Your task to perform on an android device: turn off wifi Image 0: 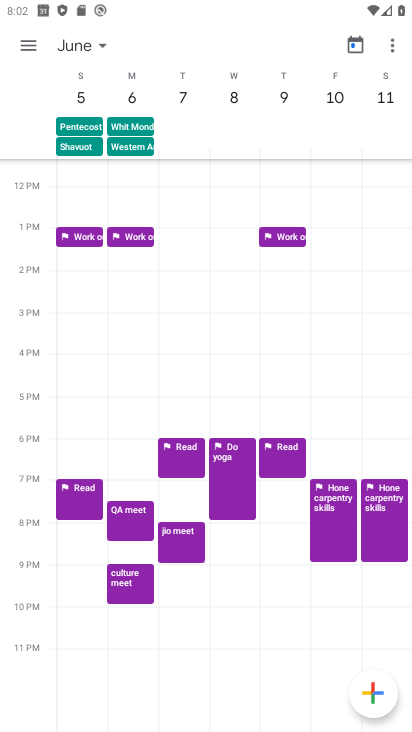
Step 0: press home button
Your task to perform on an android device: turn off wifi Image 1: 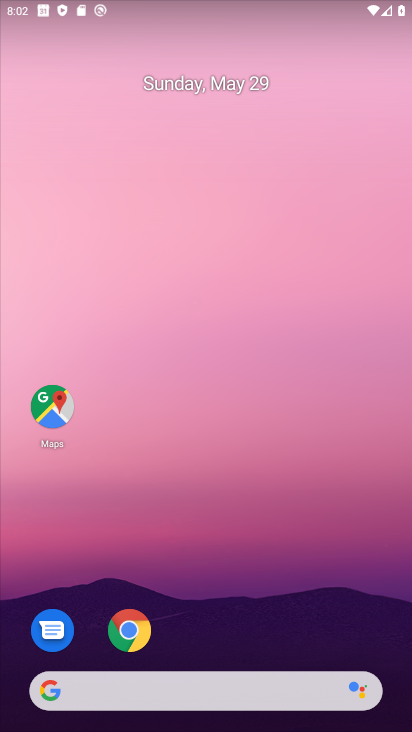
Step 1: drag from (211, 650) to (269, 20)
Your task to perform on an android device: turn off wifi Image 2: 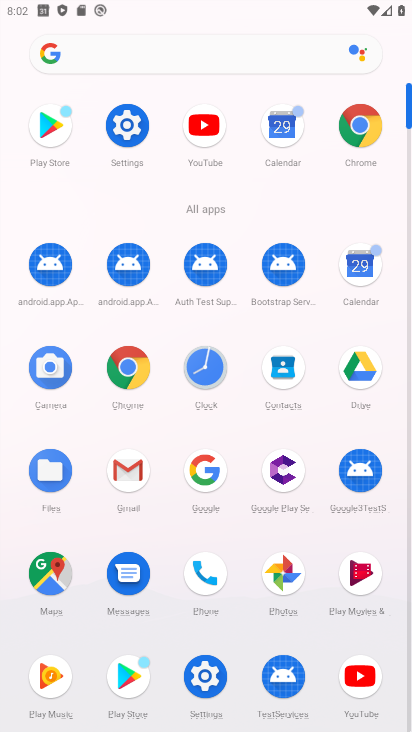
Step 2: click (144, 126)
Your task to perform on an android device: turn off wifi Image 3: 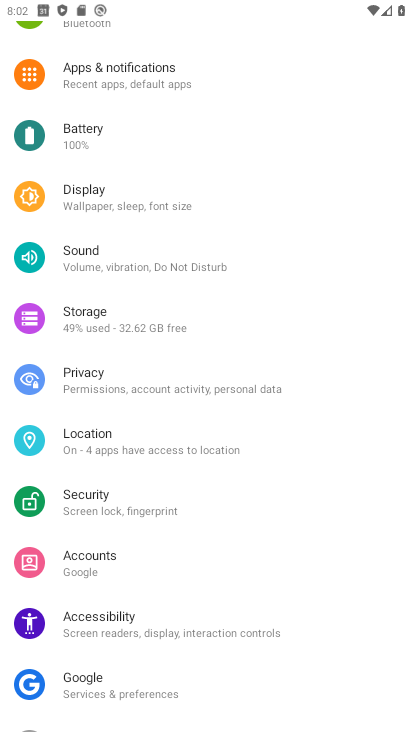
Step 3: drag from (144, 126) to (119, 662)
Your task to perform on an android device: turn off wifi Image 4: 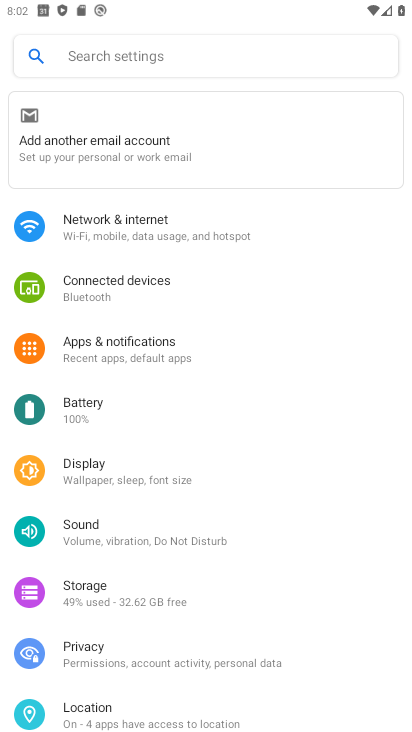
Step 4: click (119, 219)
Your task to perform on an android device: turn off wifi Image 5: 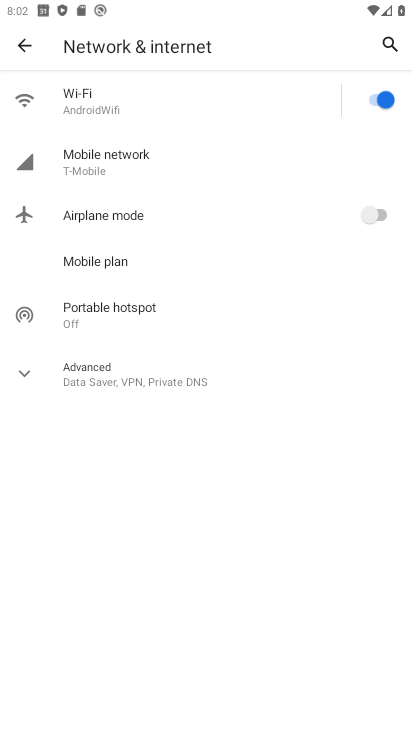
Step 5: click (382, 99)
Your task to perform on an android device: turn off wifi Image 6: 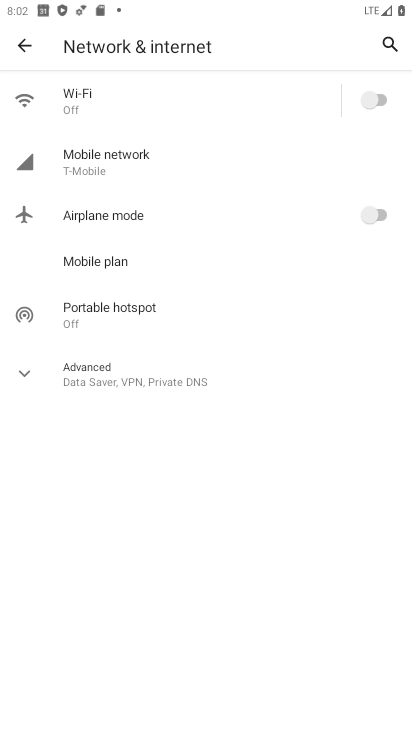
Step 6: task complete